Your task to perform on an android device: turn off smart reply in the gmail app Image 0: 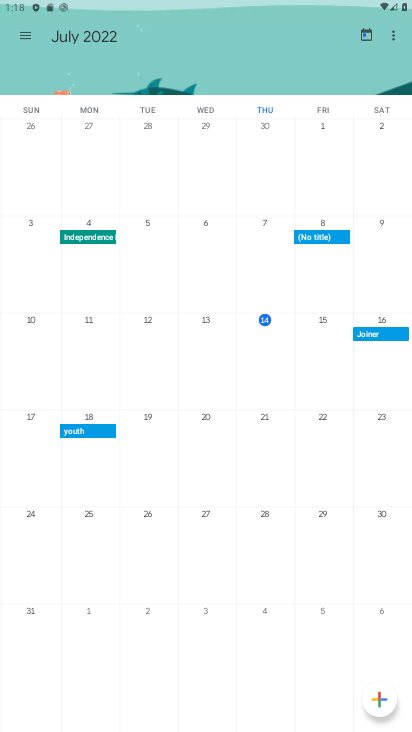
Step 0: press home button
Your task to perform on an android device: turn off smart reply in the gmail app Image 1: 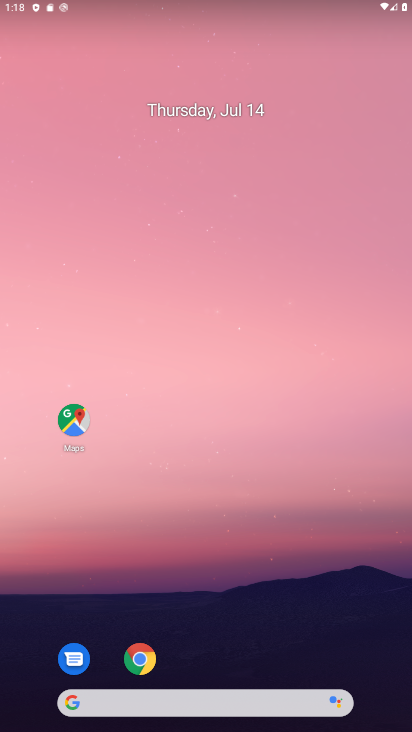
Step 1: drag from (171, 627) to (126, 206)
Your task to perform on an android device: turn off smart reply in the gmail app Image 2: 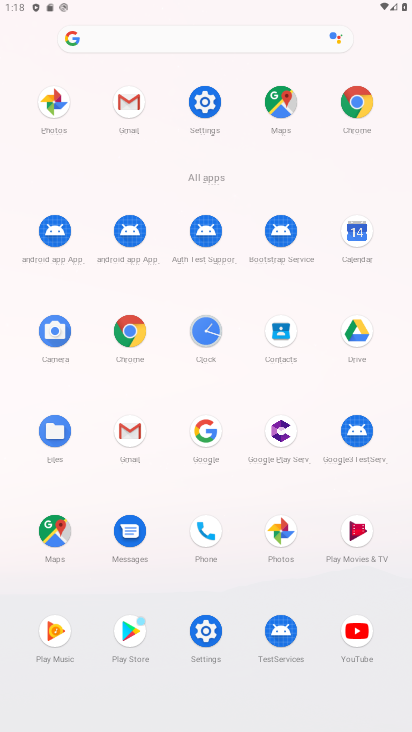
Step 2: click (143, 100)
Your task to perform on an android device: turn off smart reply in the gmail app Image 3: 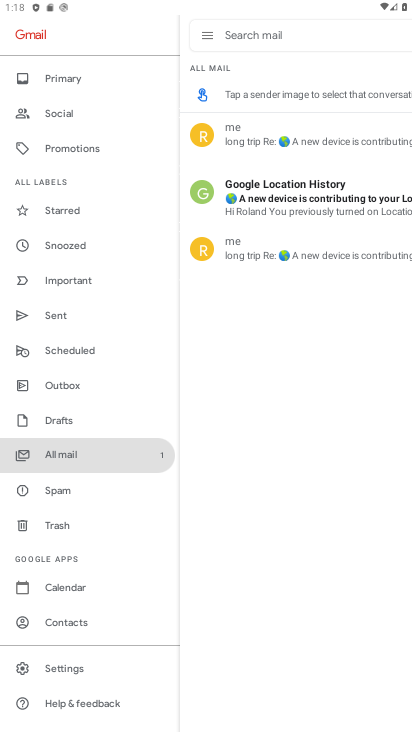
Step 3: click (96, 651)
Your task to perform on an android device: turn off smart reply in the gmail app Image 4: 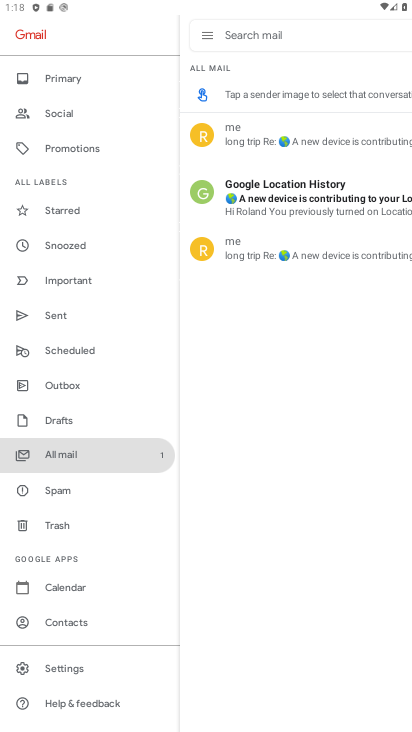
Step 4: click (70, 658)
Your task to perform on an android device: turn off smart reply in the gmail app Image 5: 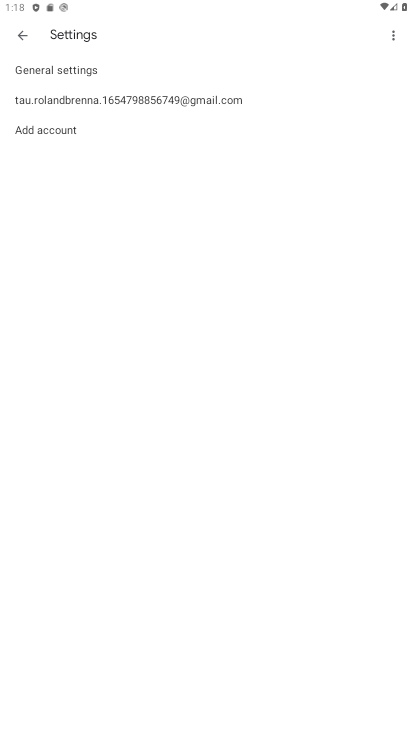
Step 5: click (221, 90)
Your task to perform on an android device: turn off smart reply in the gmail app Image 6: 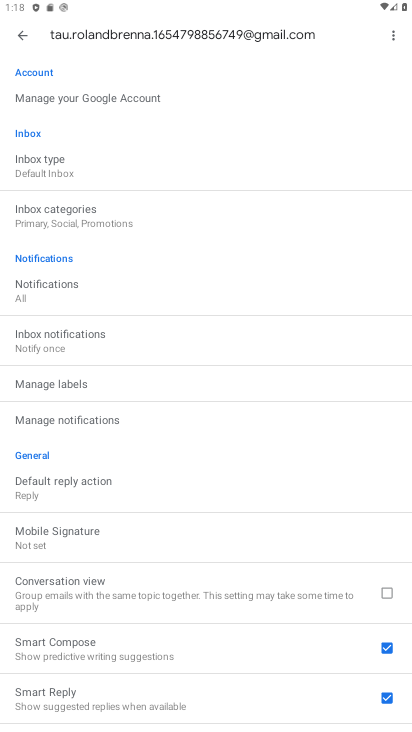
Step 6: click (152, 682)
Your task to perform on an android device: turn off smart reply in the gmail app Image 7: 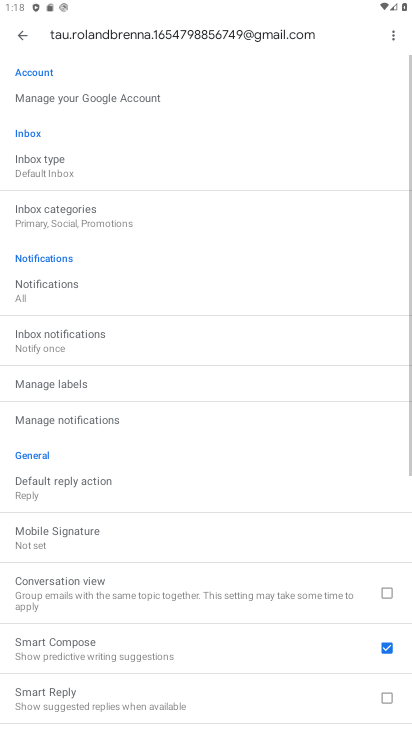
Step 7: task complete